Your task to perform on an android device: Open sound settings Image 0: 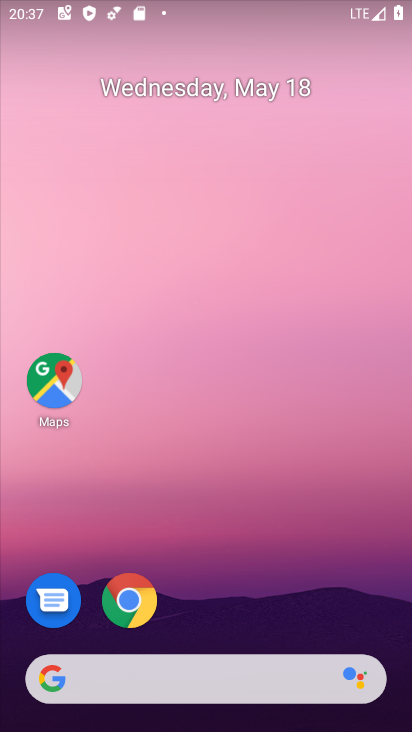
Step 0: drag from (229, 620) to (303, 98)
Your task to perform on an android device: Open sound settings Image 1: 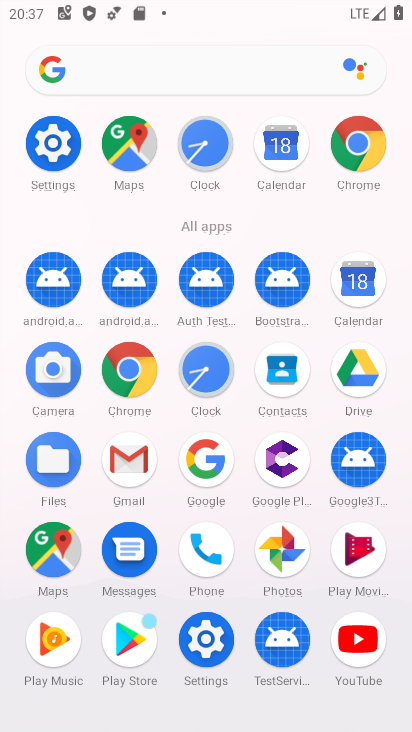
Step 1: click (55, 145)
Your task to perform on an android device: Open sound settings Image 2: 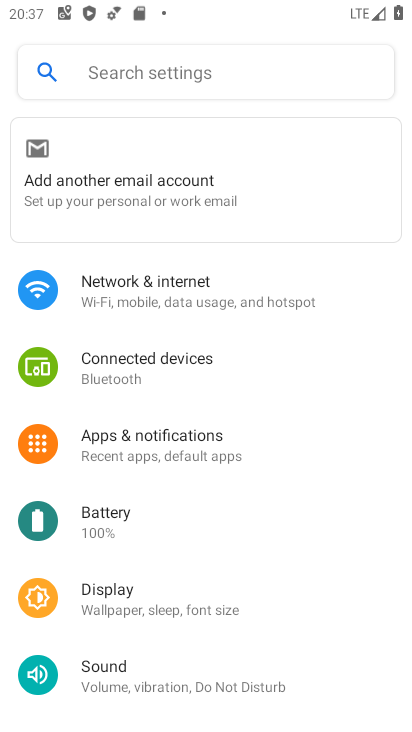
Step 2: click (198, 683)
Your task to perform on an android device: Open sound settings Image 3: 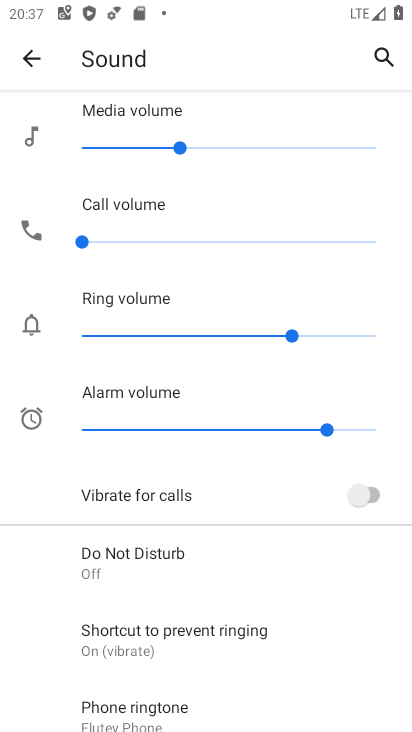
Step 3: task complete